Your task to perform on an android device: What's the weather? Image 0: 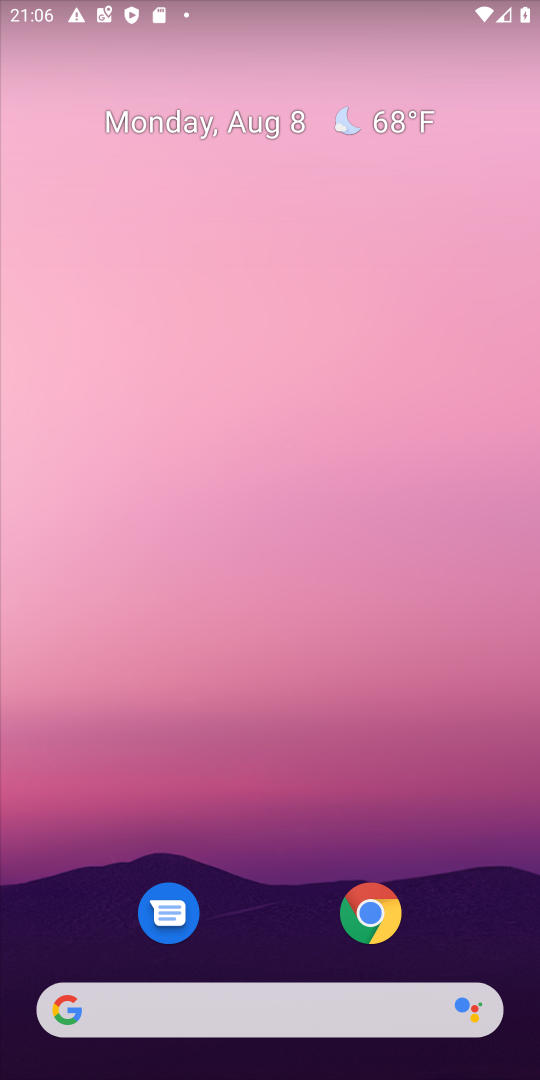
Step 0: drag from (251, 994) to (367, 101)
Your task to perform on an android device: What's the weather? Image 1: 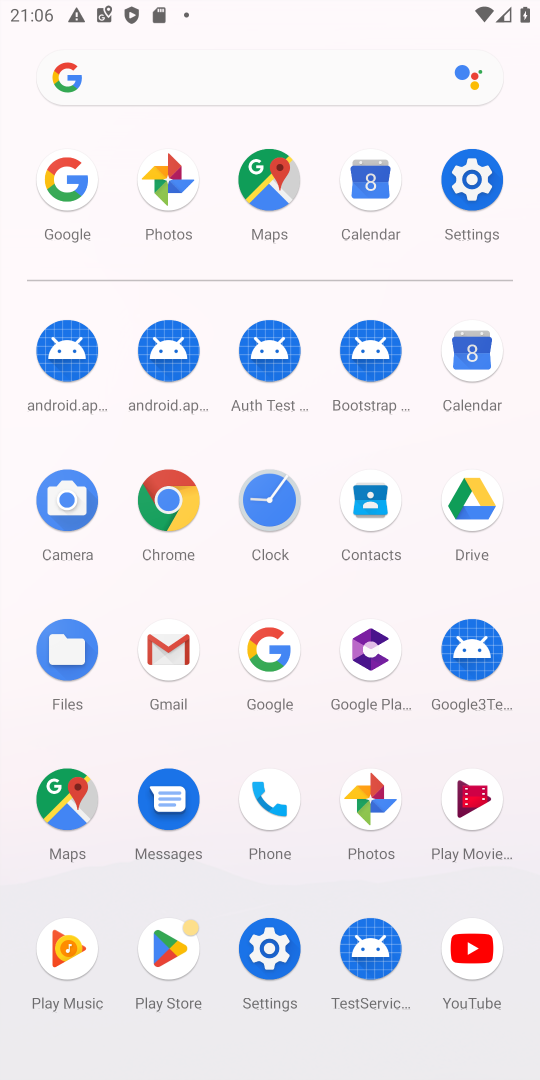
Step 1: click (65, 174)
Your task to perform on an android device: What's the weather? Image 2: 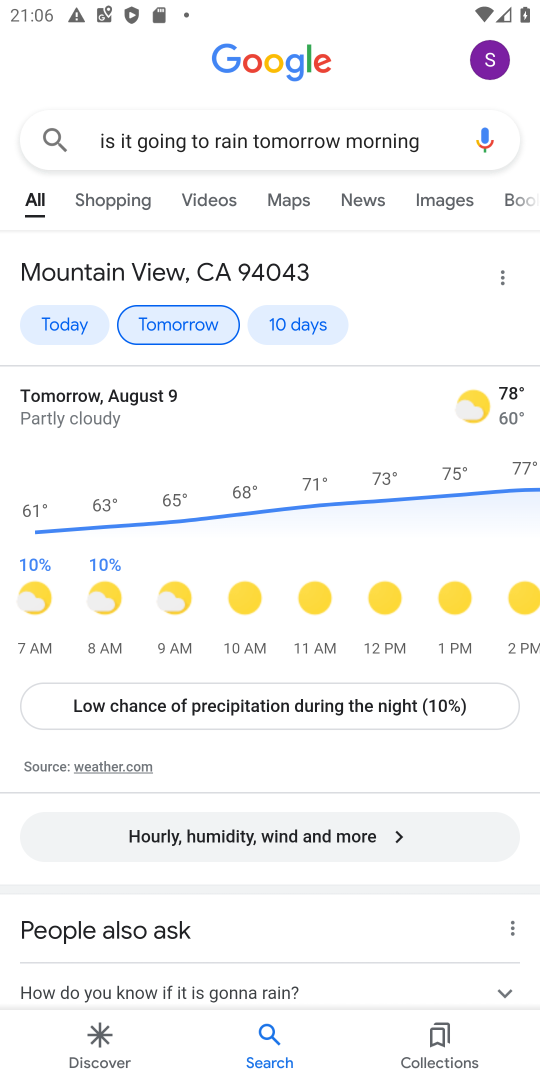
Step 2: click (434, 139)
Your task to perform on an android device: What's the weather? Image 3: 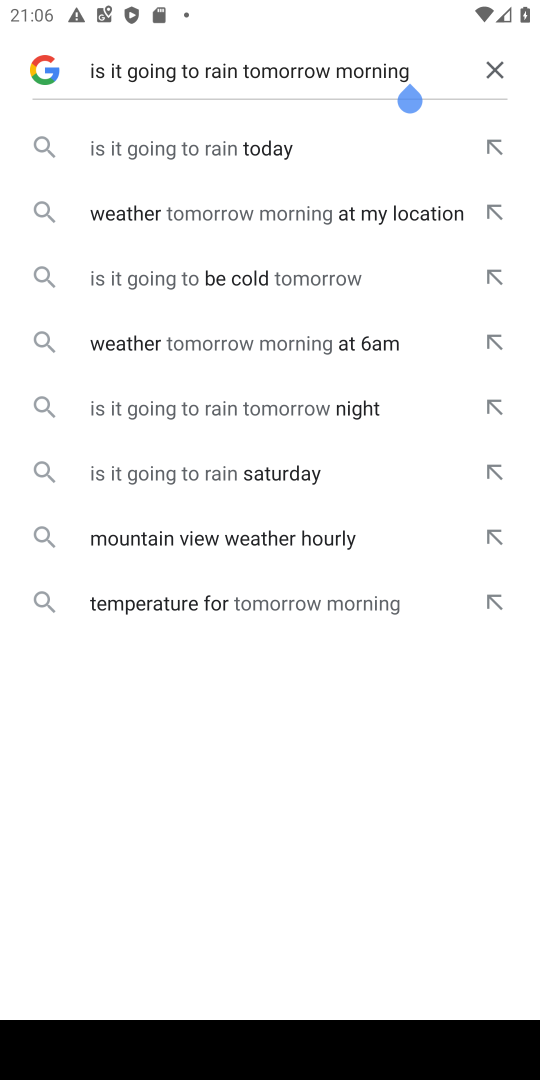
Step 3: click (496, 77)
Your task to perform on an android device: What's the weather? Image 4: 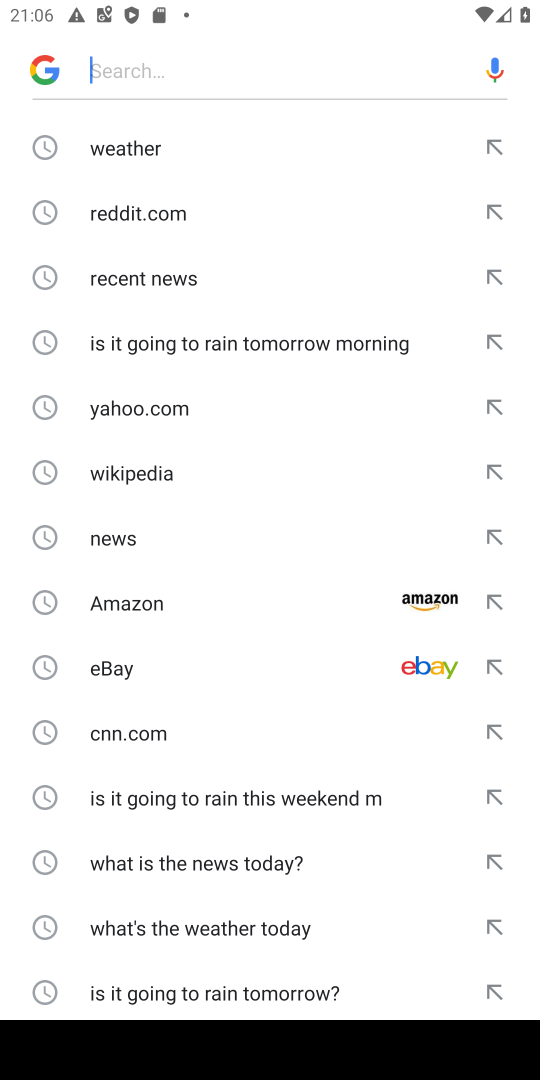
Step 4: click (142, 145)
Your task to perform on an android device: What's the weather? Image 5: 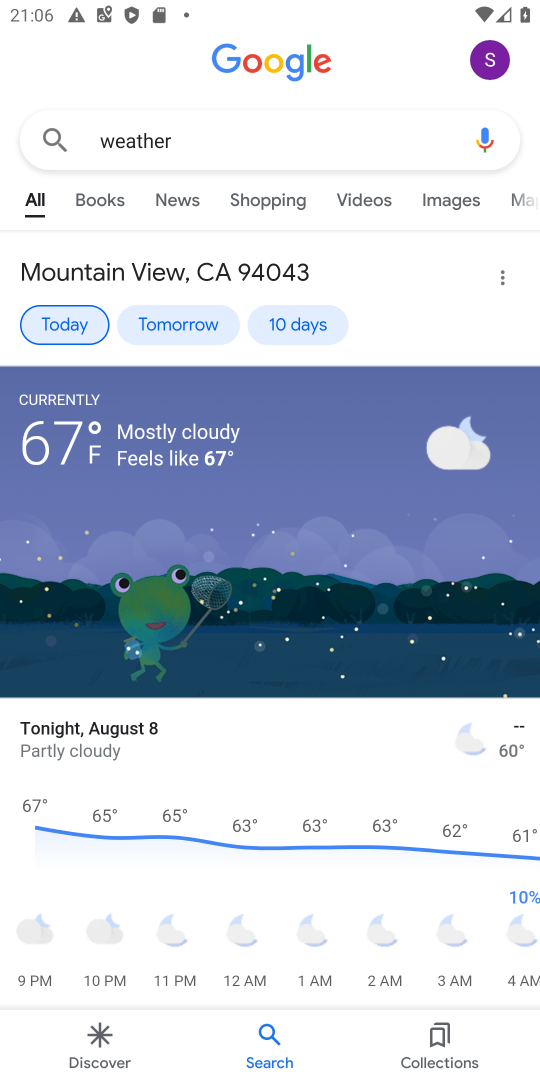
Step 5: task complete